Your task to perform on an android device: What's the weather? Image 0: 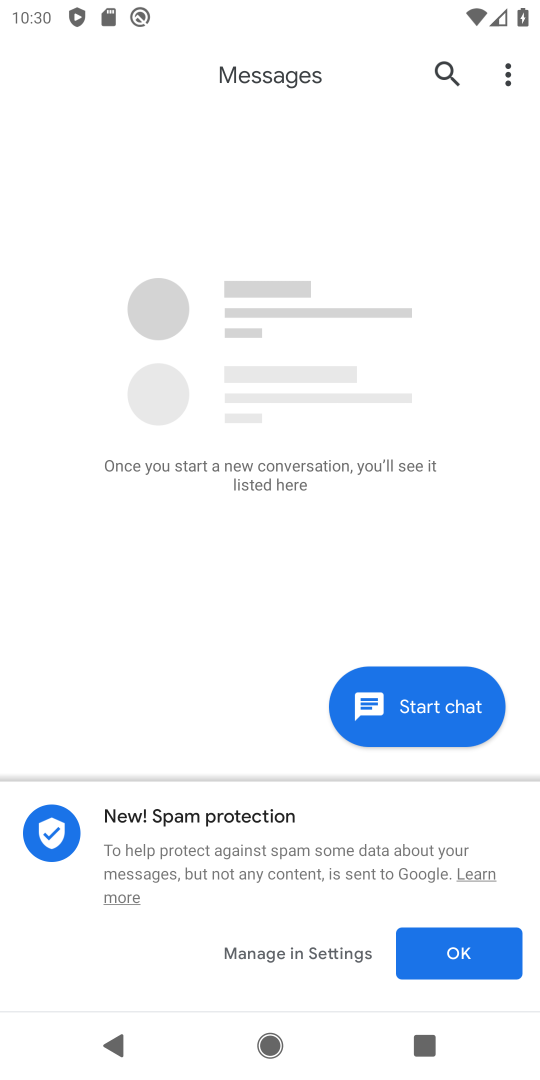
Step 0: press home button
Your task to perform on an android device: What's the weather? Image 1: 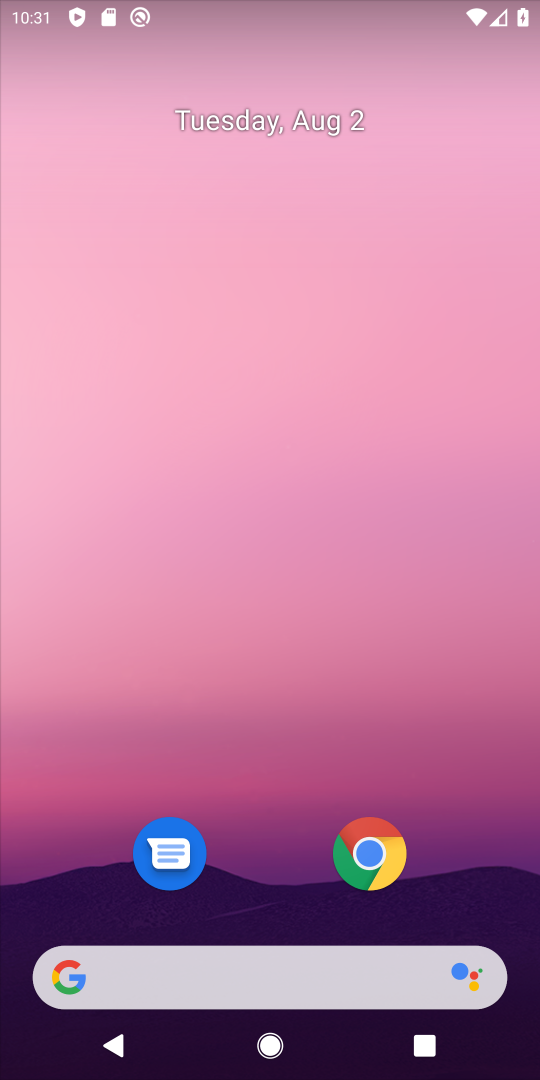
Step 1: click (341, 972)
Your task to perform on an android device: What's the weather? Image 2: 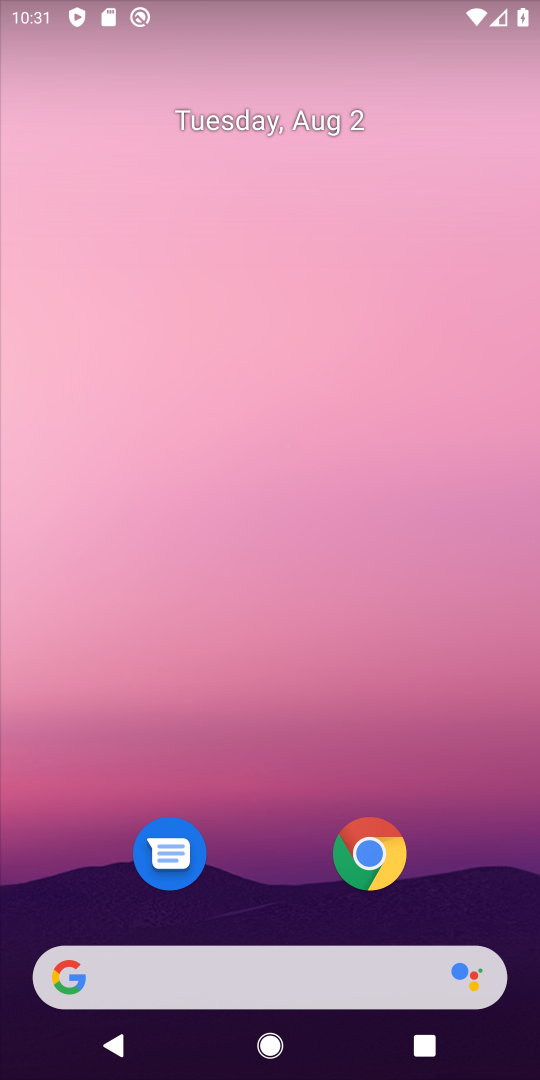
Step 2: click (337, 971)
Your task to perform on an android device: What's the weather? Image 3: 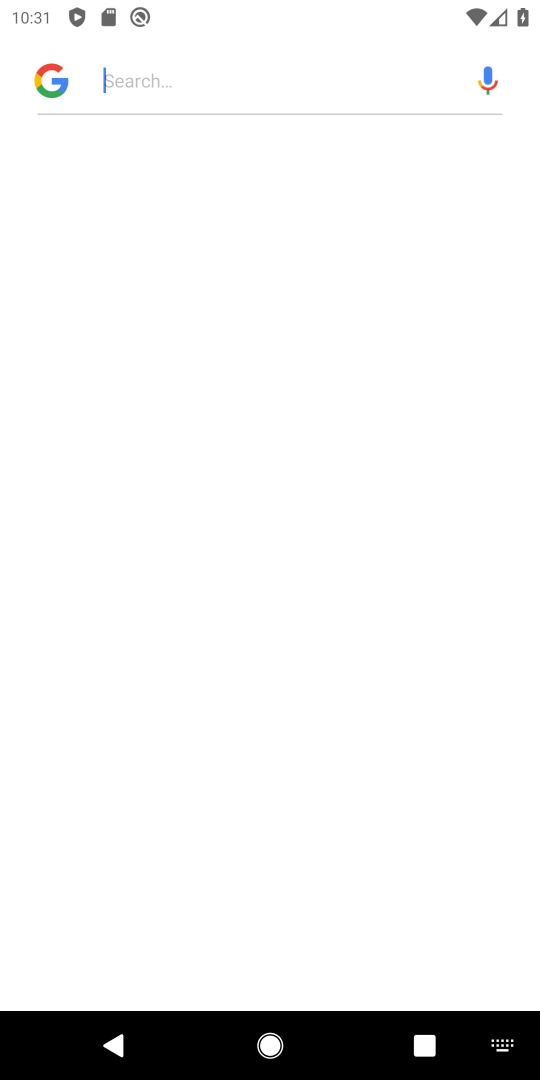
Step 3: type "weather"
Your task to perform on an android device: What's the weather? Image 4: 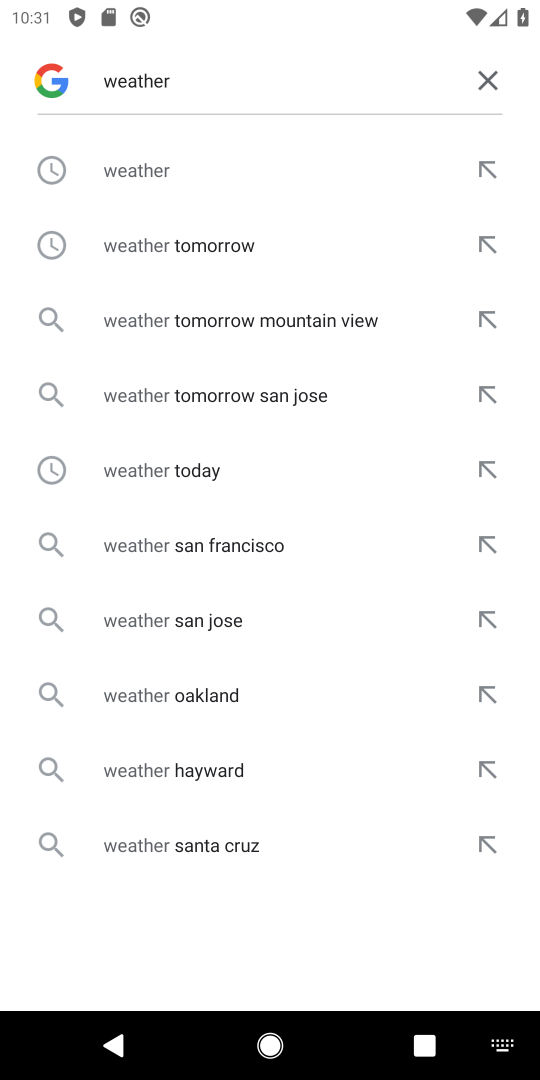
Step 4: click (241, 154)
Your task to perform on an android device: What's the weather? Image 5: 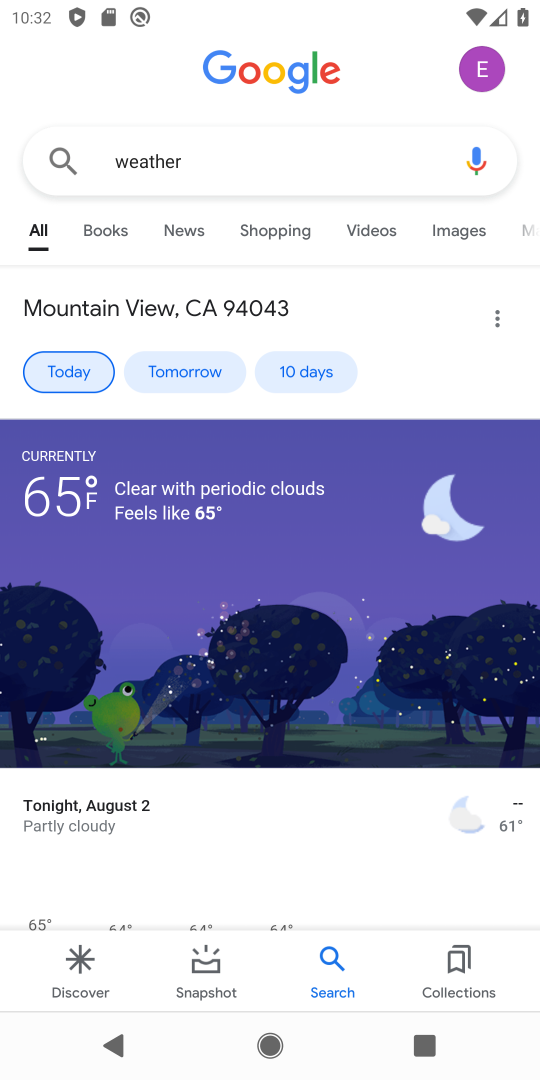
Step 5: task complete